Your task to perform on an android device: turn pop-ups off in chrome Image 0: 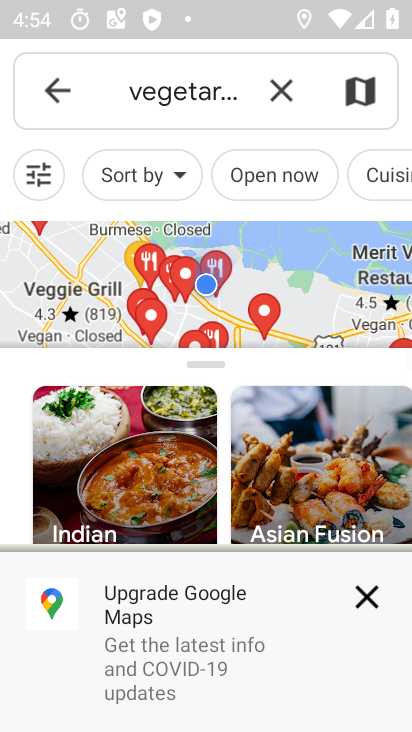
Step 0: press home button
Your task to perform on an android device: turn pop-ups off in chrome Image 1: 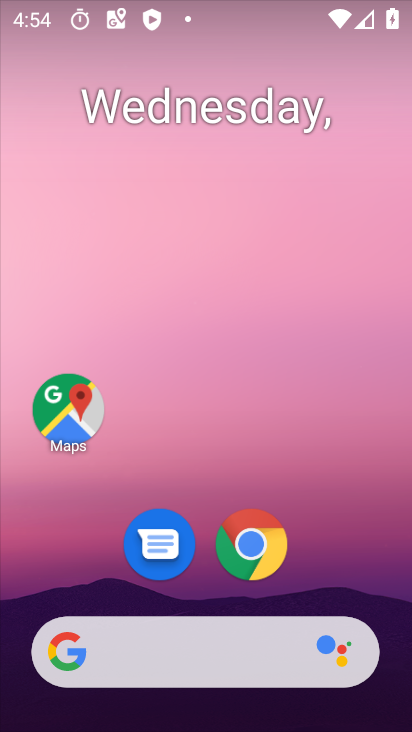
Step 1: click (251, 550)
Your task to perform on an android device: turn pop-ups off in chrome Image 2: 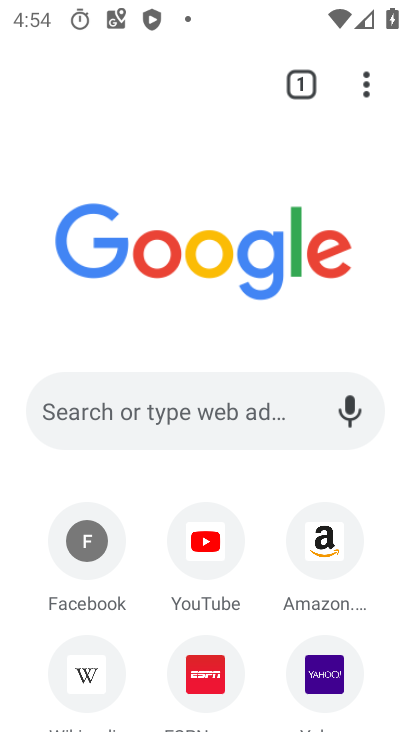
Step 2: click (366, 92)
Your task to perform on an android device: turn pop-ups off in chrome Image 3: 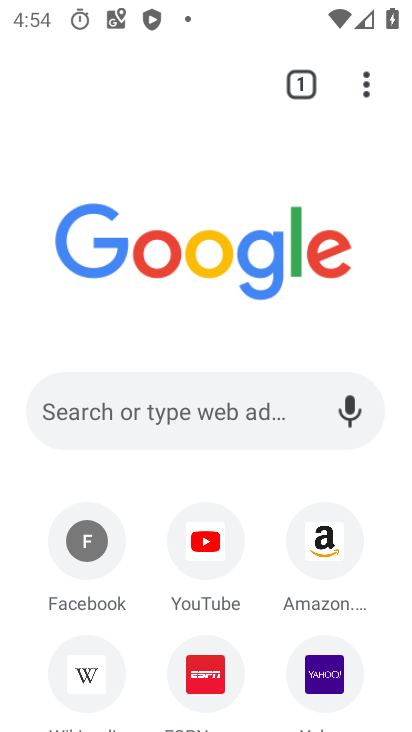
Step 3: drag from (361, 85) to (99, 605)
Your task to perform on an android device: turn pop-ups off in chrome Image 4: 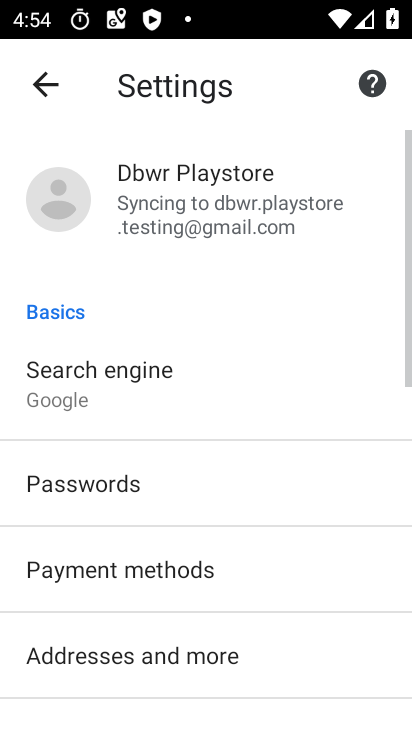
Step 4: drag from (99, 605) to (56, 120)
Your task to perform on an android device: turn pop-ups off in chrome Image 5: 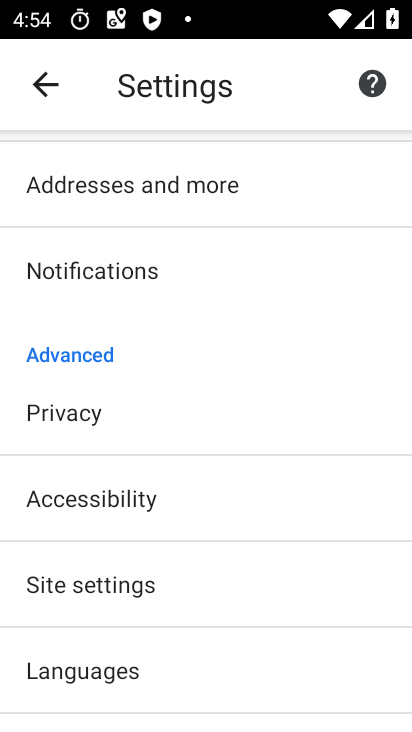
Step 5: click (128, 577)
Your task to perform on an android device: turn pop-ups off in chrome Image 6: 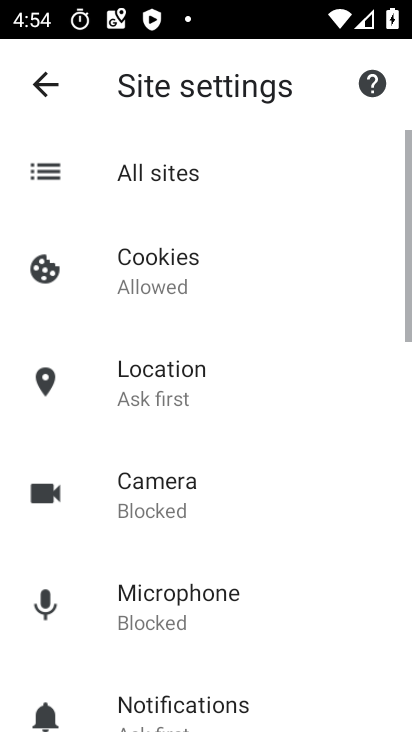
Step 6: drag from (128, 577) to (75, 49)
Your task to perform on an android device: turn pop-ups off in chrome Image 7: 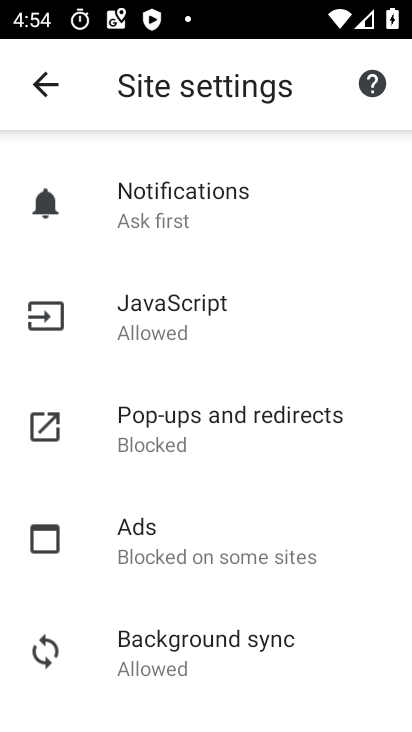
Step 7: click (185, 418)
Your task to perform on an android device: turn pop-ups off in chrome Image 8: 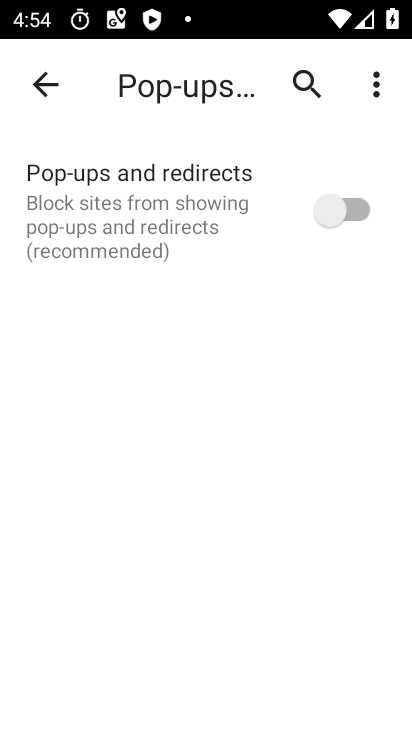
Step 8: task complete